Your task to perform on an android device: set the stopwatch Image 0: 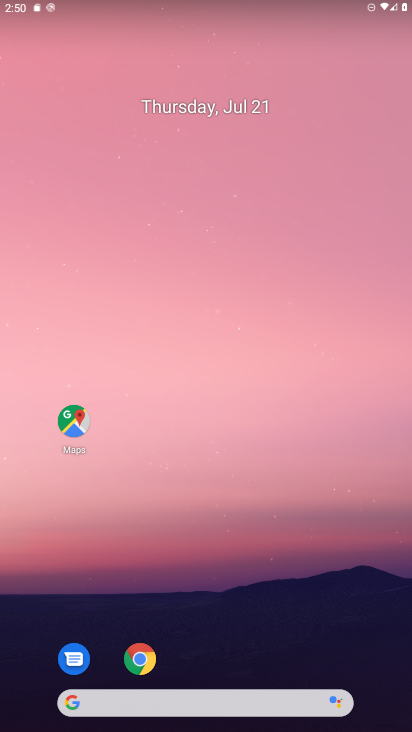
Step 0: press home button
Your task to perform on an android device: set the stopwatch Image 1: 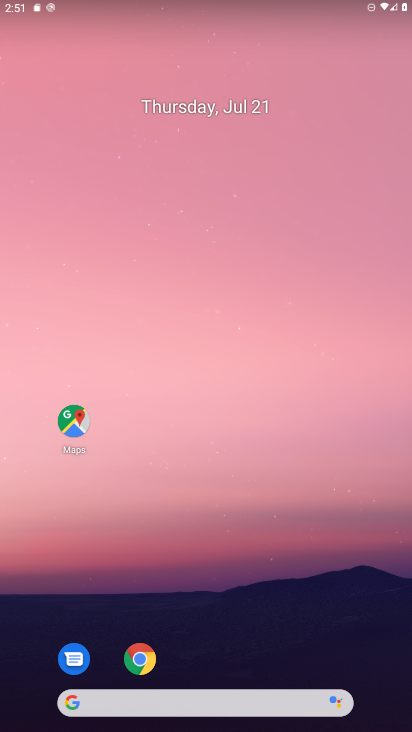
Step 1: drag from (15, 646) to (307, 137)
Your task to perform on an android device: set the stopwatch Image 2: 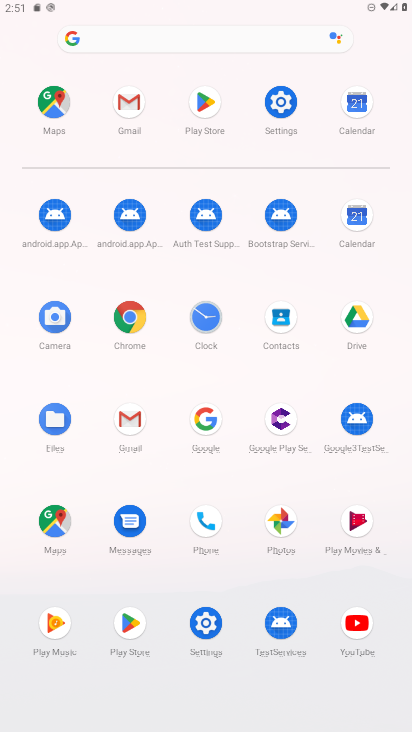
Step 2: click (200, 325)
Your task to perform on an android device: set the stopwatch Image 3: 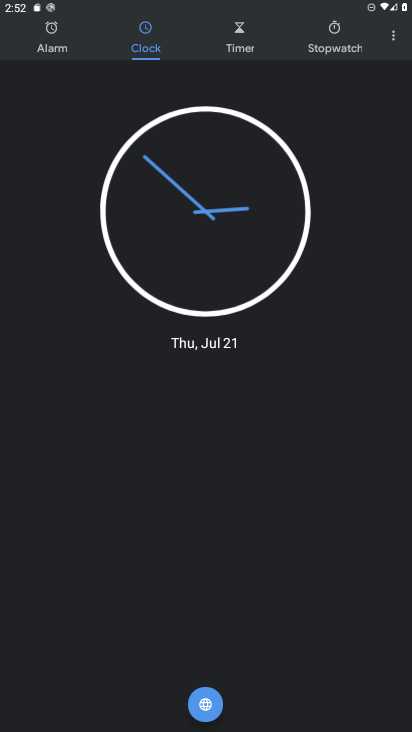
Step 3: click (330, 50)
Your task to perform on an android device: set the stopwatch Image 4: 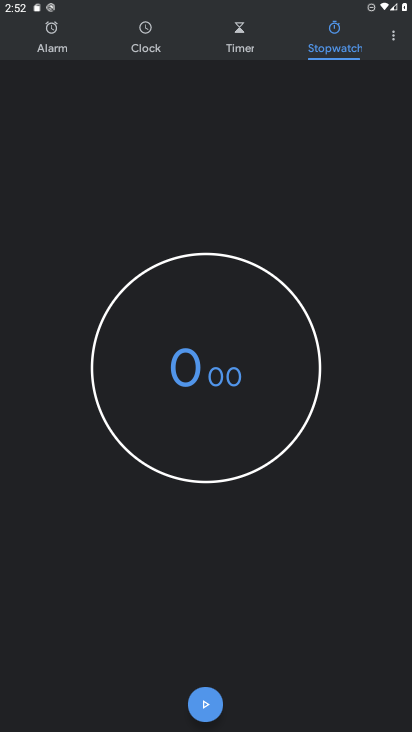
Step 4: click (210, 711)
Your task to perform on an android device: set the stopwatch Image 5: 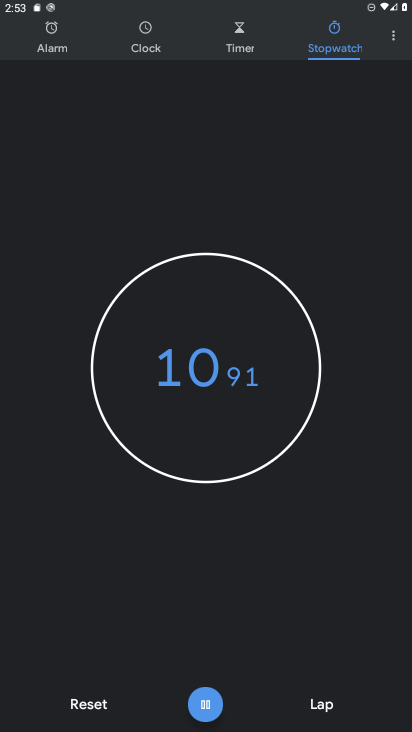
Step 5: task complete